Your task to perform on an android device: What's the weather? Image 0: 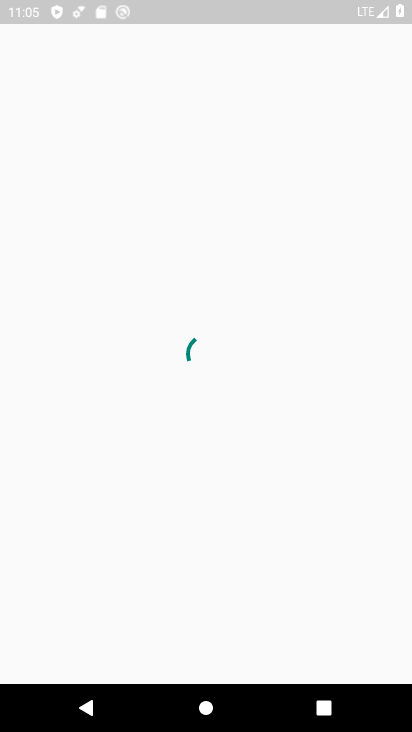
Step 0: press home button
Your task to perform on an android device: What's the weather? Image 1: 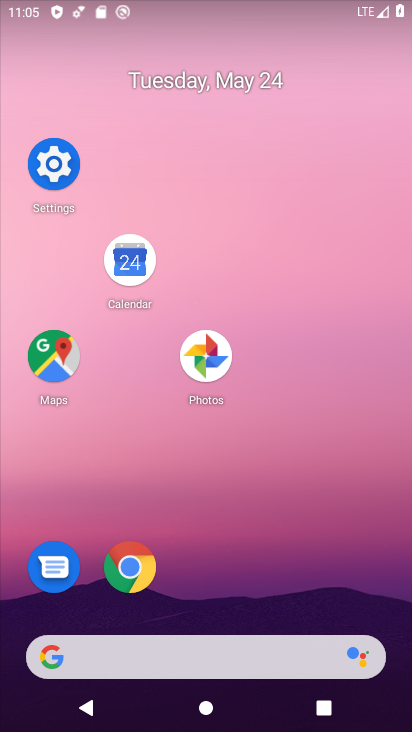
Step 1: drag from (245, 442) to (344, 16)
Your task to perform on an android device: What's the weather? Image 2: 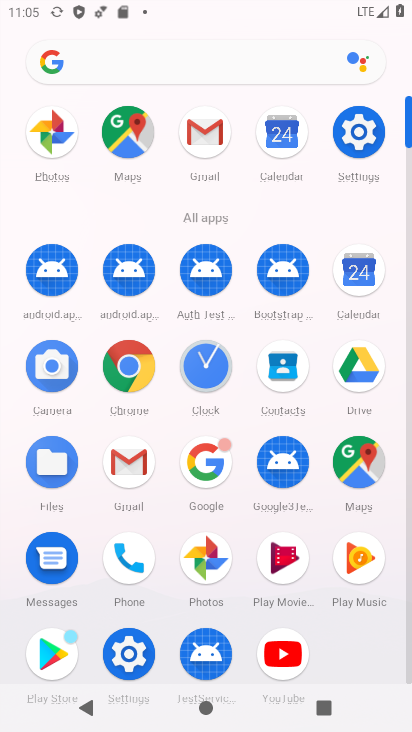
Step 2: drag from (210, 464) to (53, 270)
Your task to perform on an android device: What's the weather? Image 3: 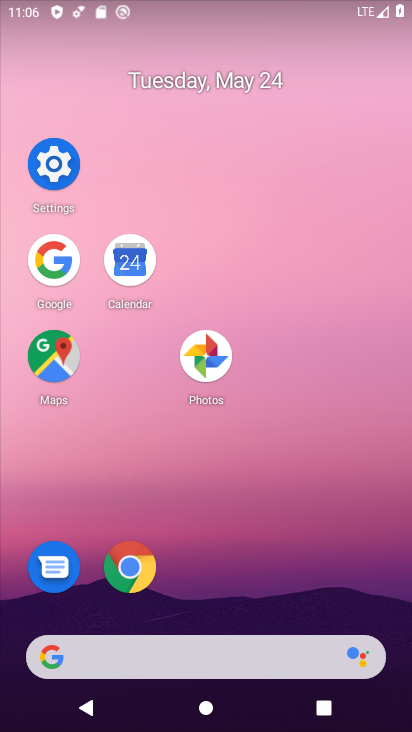
Step 3: click (63, 266)
Your task to perform on an android device: What's the weather? Image 4: 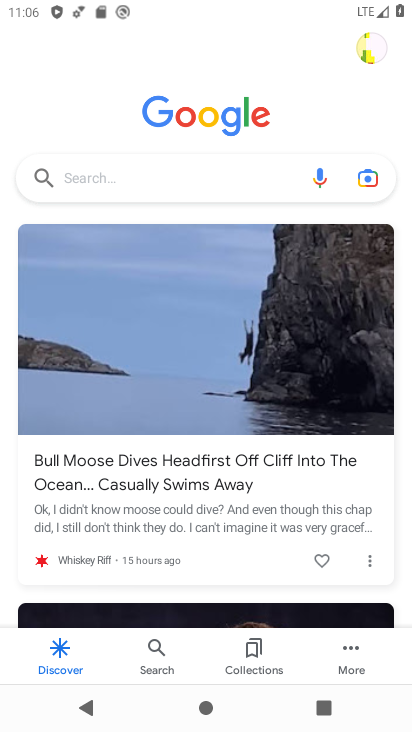
Step 4: click (216, 181)
Your task to perform on an android device: What's the weather? Image 5: 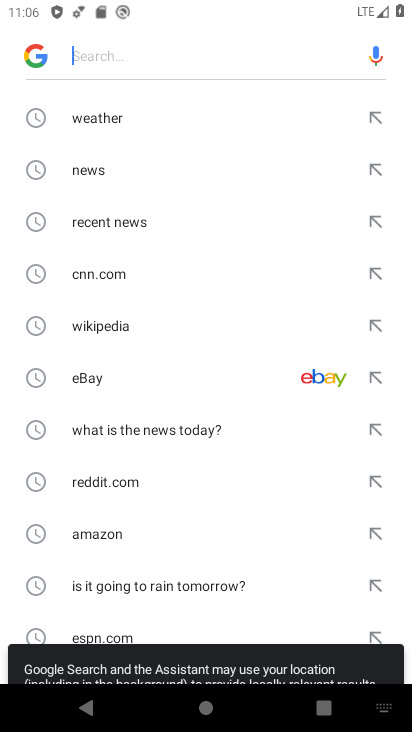
Step 5: click (142, 114)
Your task to perform on an android device: What's the weather? Image 6: 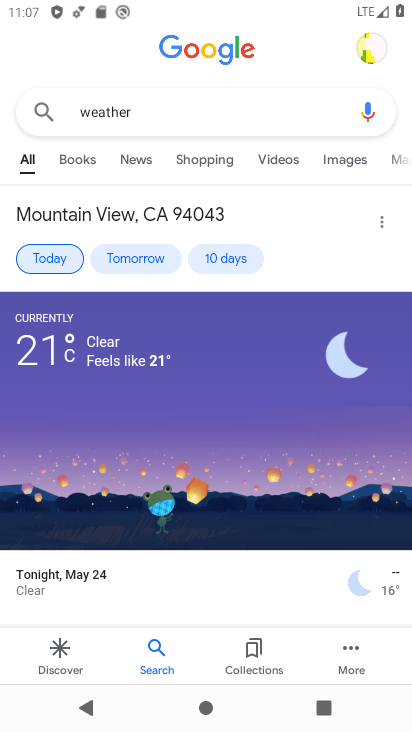
Step 6: task complete